Your task to perform on an android device: Open the stopwatch Image 0: 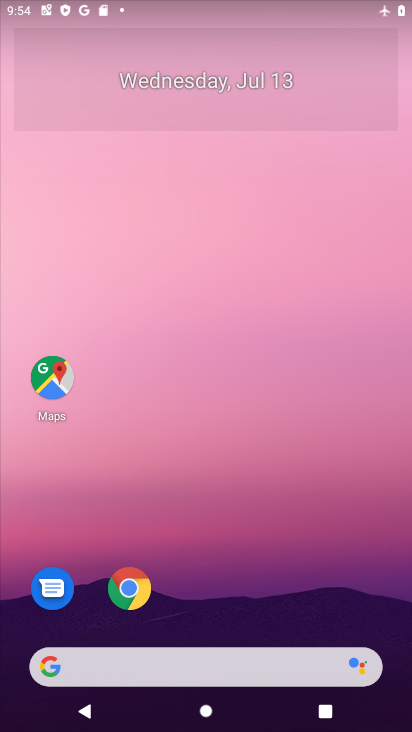
Step 0: drag from (214, 602) to (183, 186)
Your task to perform on an android device: Open the stopwatch Image 1: 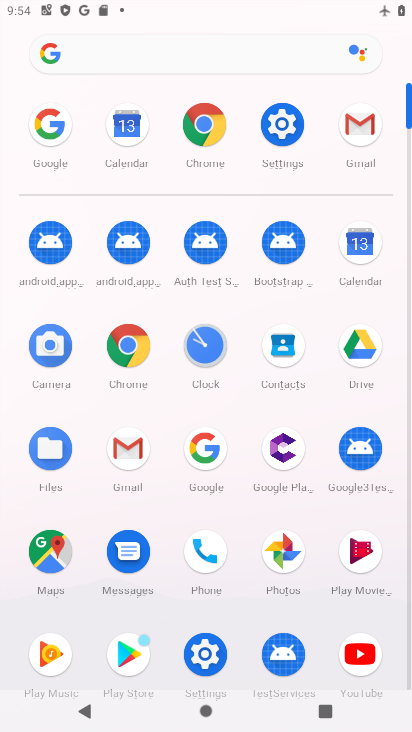
Step 1: click (208, 341)
Your task to perform on an android device: Open the stopwatch Image 2: 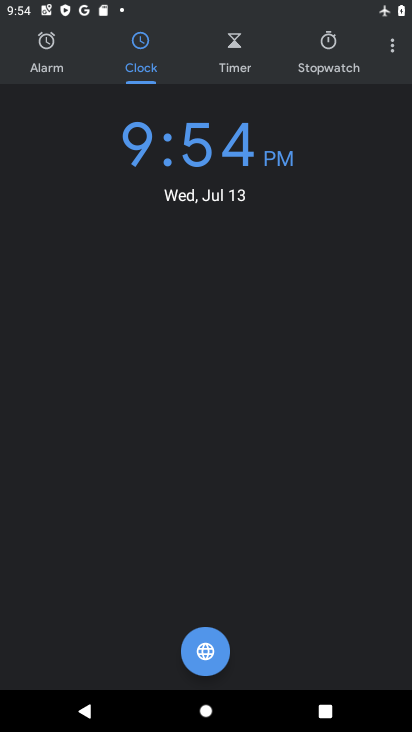
Step 2: click (326, 59)
Your task to perform on an android device: Open the stopwatch Image 3: 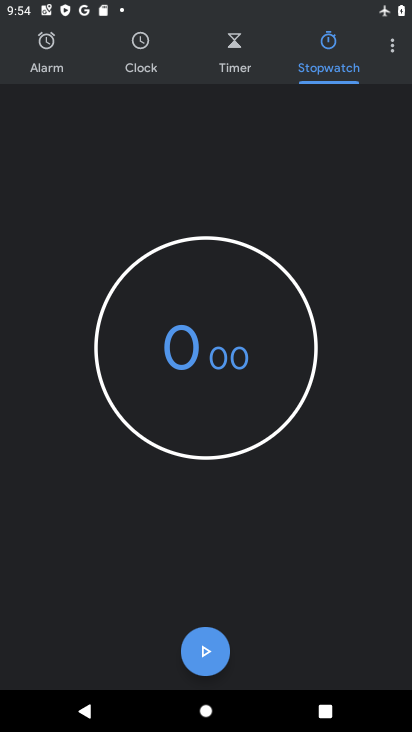
Step 3: task complete